Your task to perform on an android device: open app "VLC for Android" (install if not already installed) Image 0: 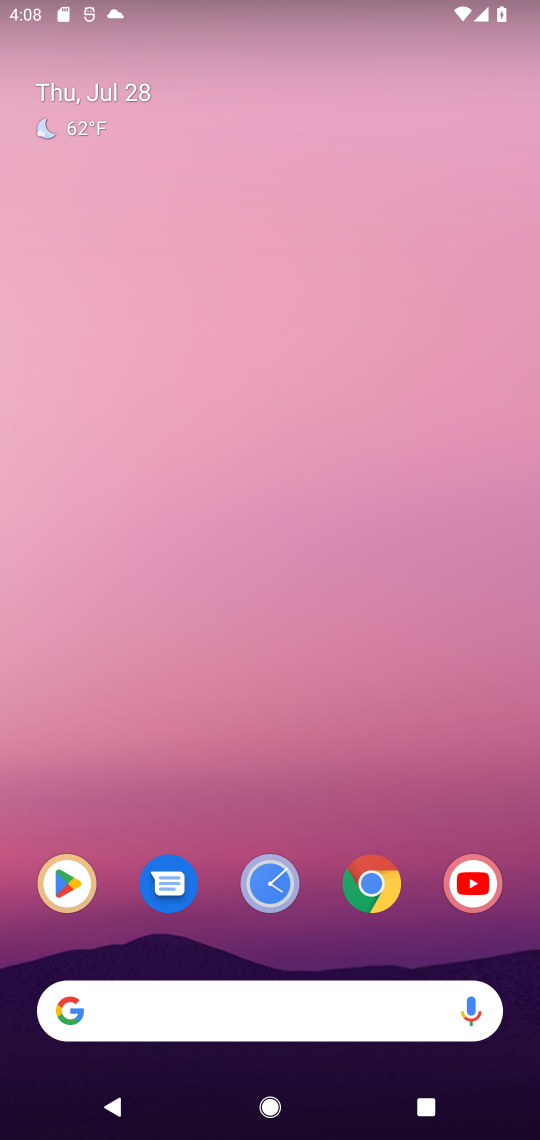
Step 0: drag from (241, 948) to (513, 58)
Your task to perform on an android device: open app "VLC for Android" (install if not already installed) Image 1: 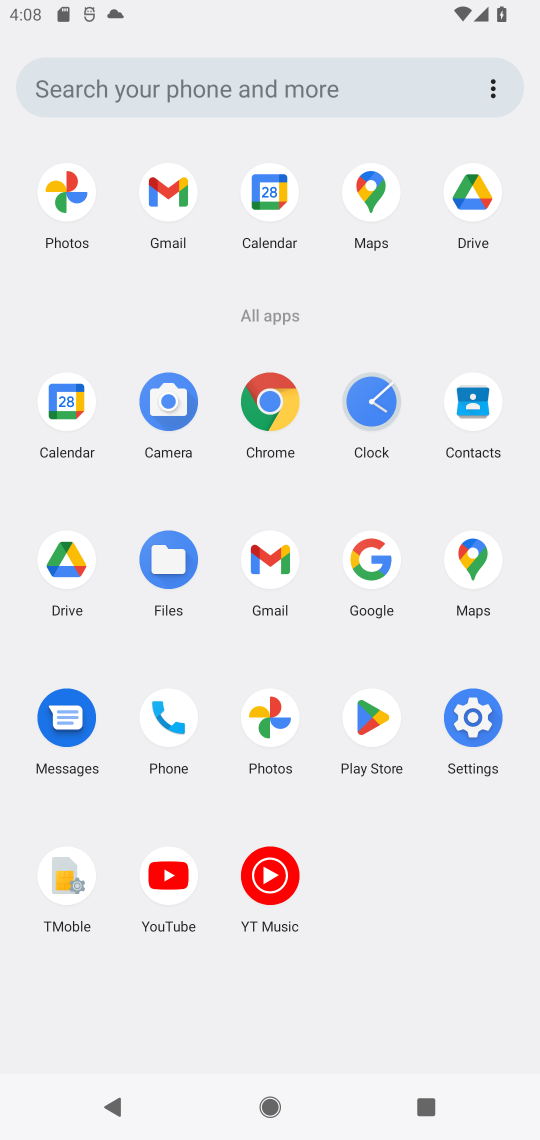
Step 1: click (374, 718)
Your task to perform on an android device: open app "VLC for Android" (install if not already installed) Image 2: 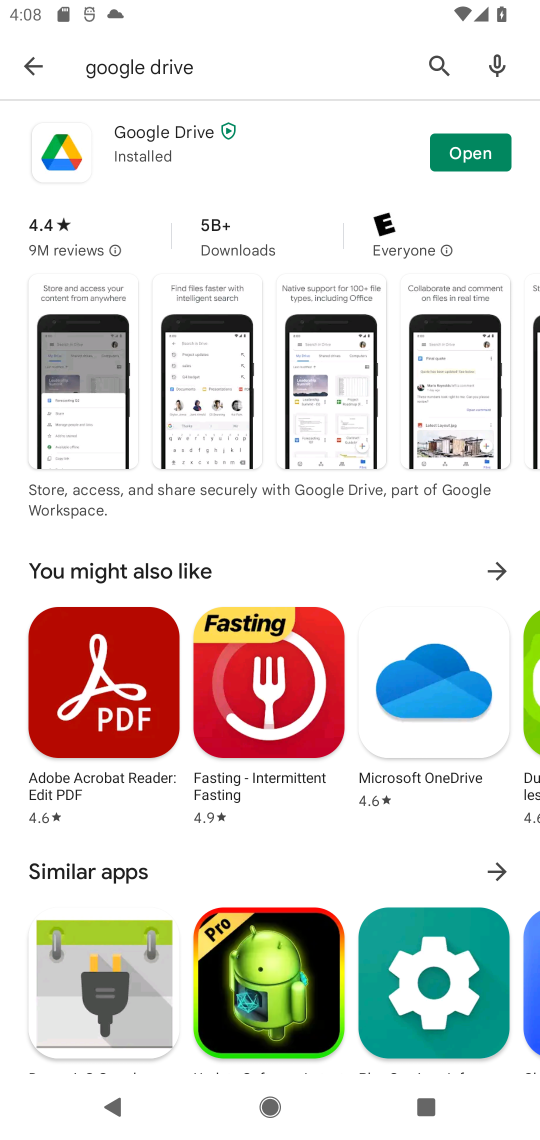
Step 2: click (439, 50)
Your task to perform on an android device: open app "VLC for Android" (install if not already installed) Image 3: 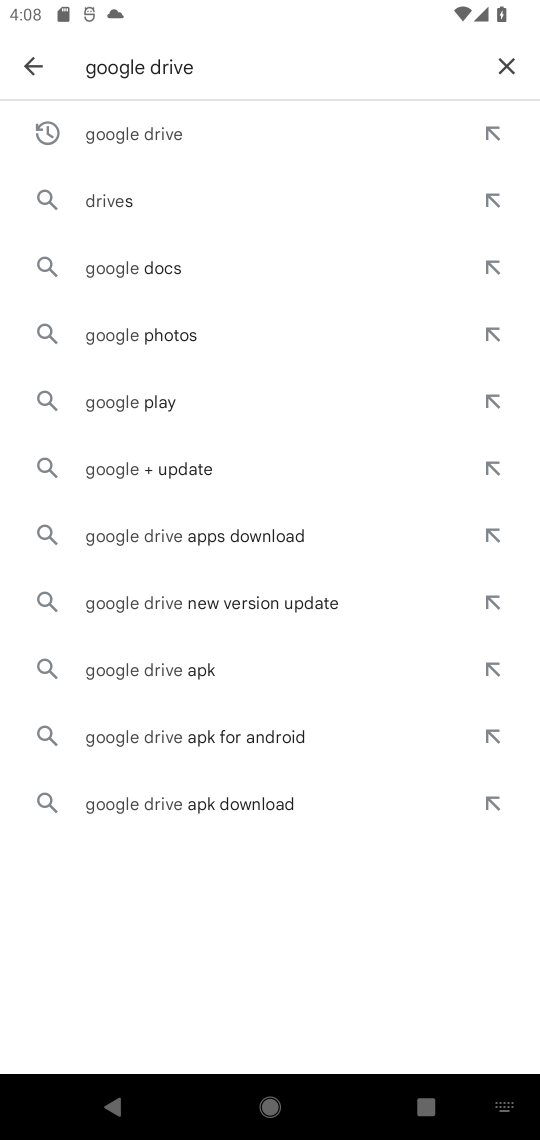
Step 3: click (504, 61)
Your task to perform on an android device: open app "VLC for Android" (install if not already installed) Image 4: 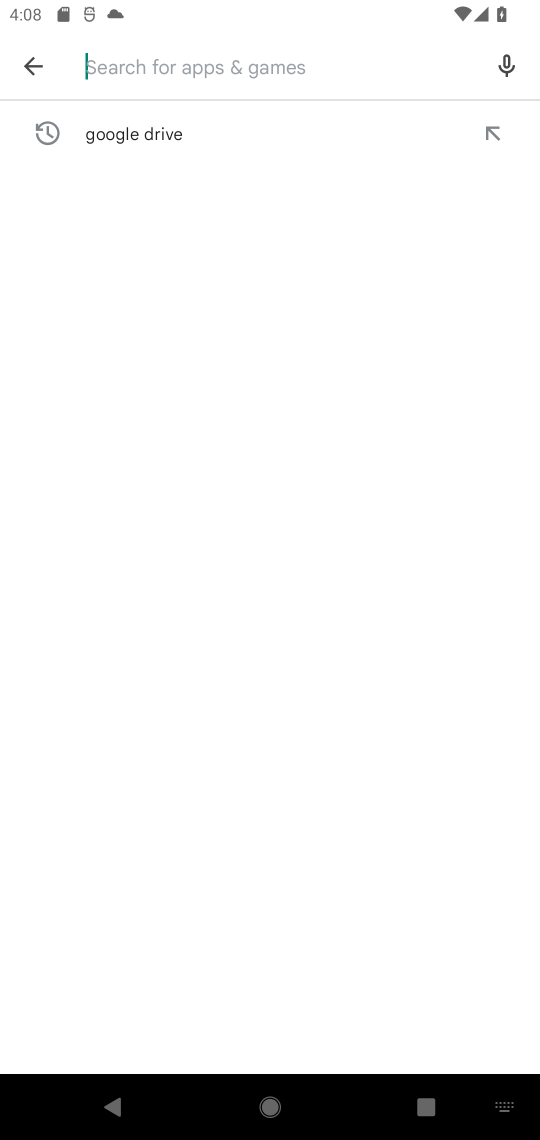
Step 4: type "VLC for Android"
Your task to perform on an android device: open app "VLC for Android" (install if not already installed) Image 5: 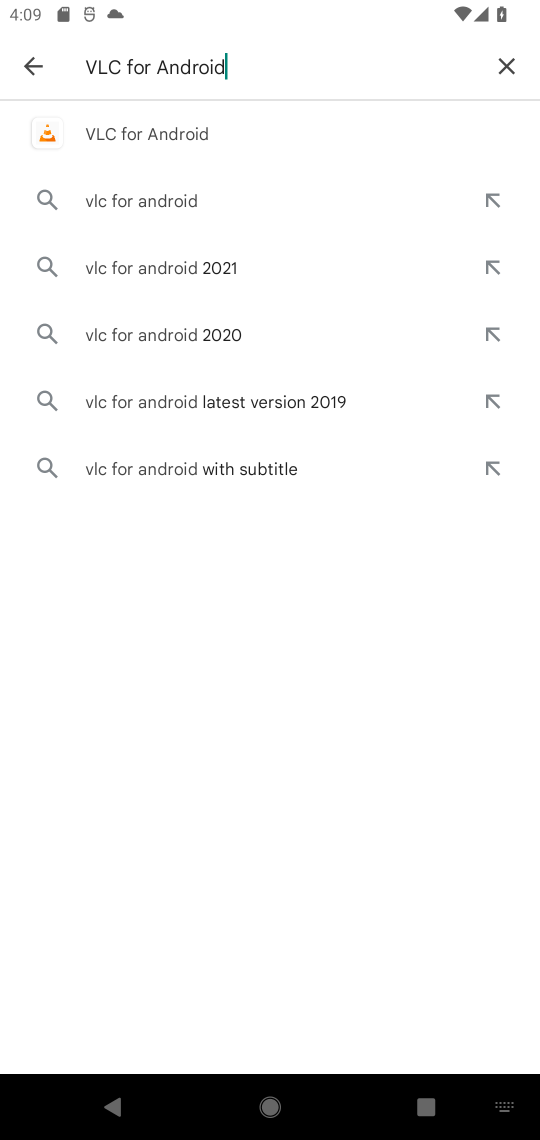
Step 5: click (124, 125)
Your task to perform on an android device: open app "VLC for Android" (install if not already installed) Image 6: 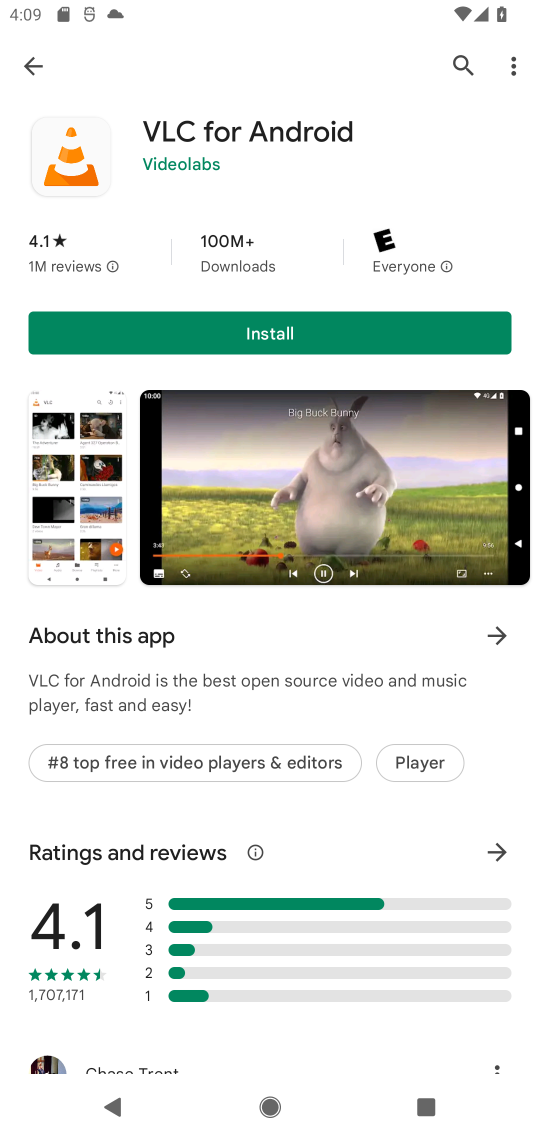
Step 6: click (264, 329)
Your task to perform on an android device: open app "VLC for Android" (install if not already installed) Image 7: 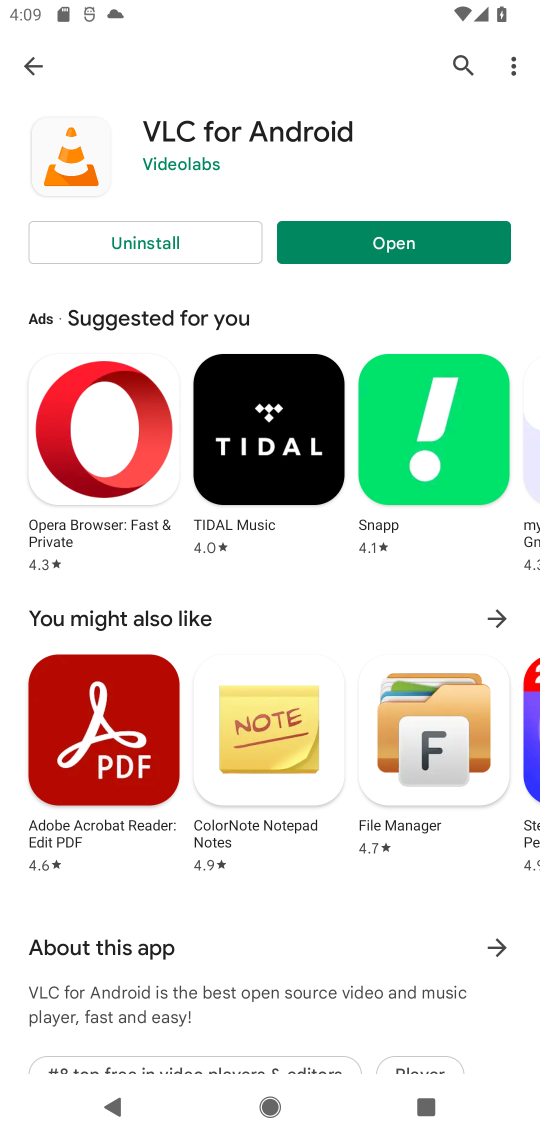
Step 7: click (476, 250)
Your task to perform on an android device: open app "VLC for Android" (install if not already installed) Image 8: 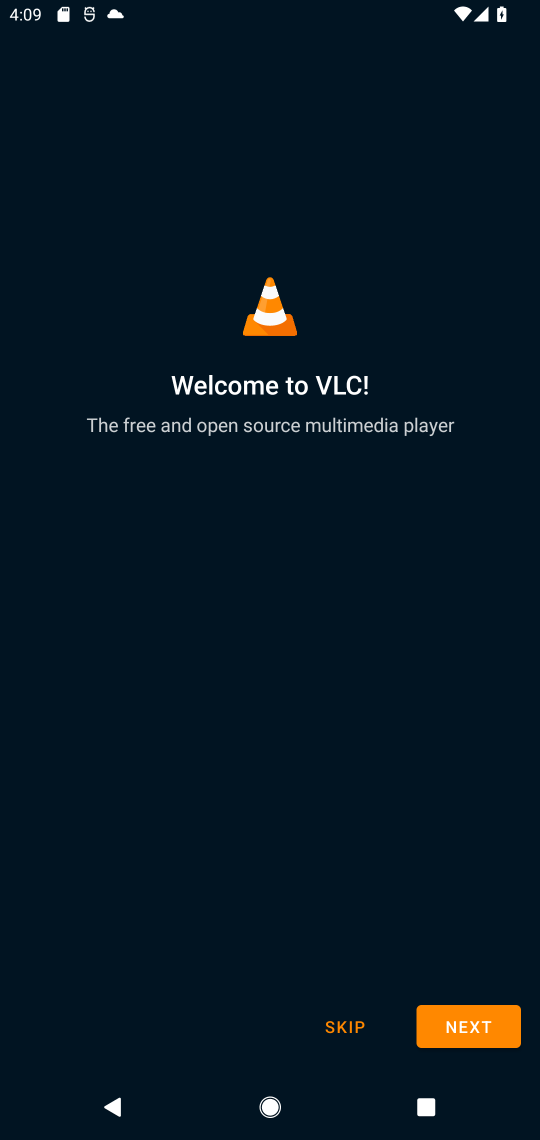
Step 8: click (332, 1035)
Your task to perform on an android device: open app "VLC for Android" (install if not already installed) Image 9: 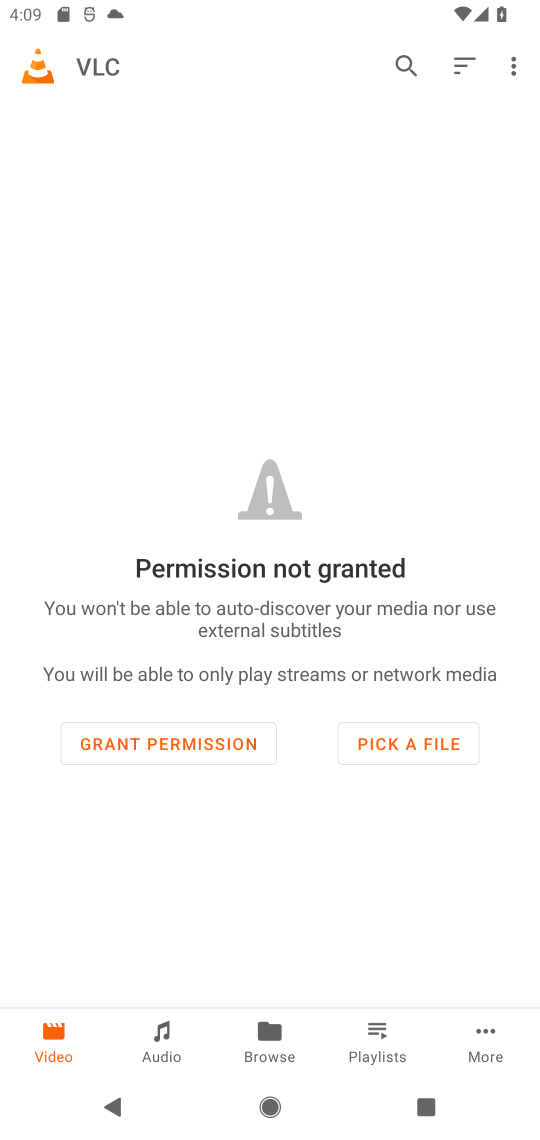
Step 9: task complete